Your task to perform on an android device: check out phone information Image 0: 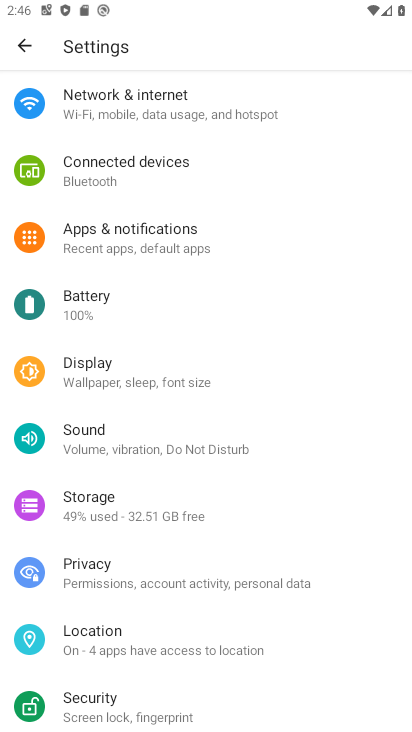
Step 0: drag from (191, 669) to (166, 87)
Your task to perform on an android device: check out phone information Image 1: 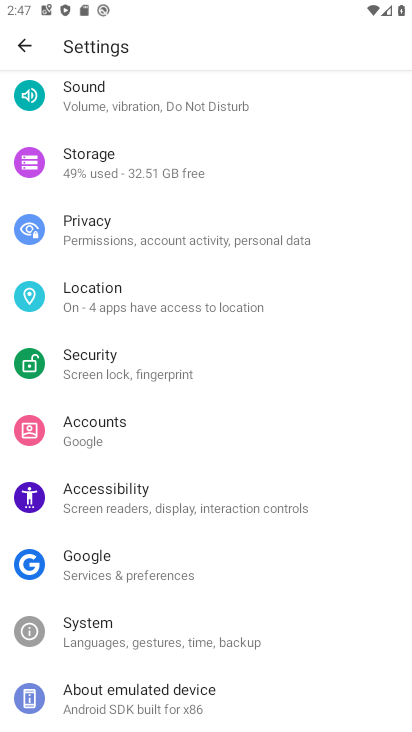
Step 1: drag from (221, 588) to (197, 385)
Your task to perform on an android device: check out phone information Image 2: 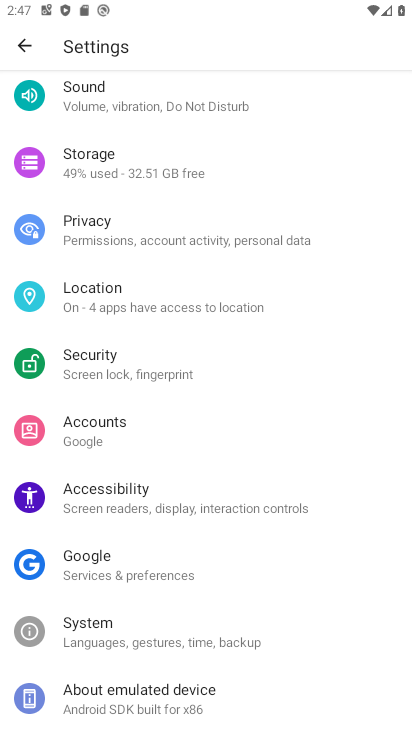
Step 2: click (224, 718)
Your task to perform on an android device: check out phone information Image 3: 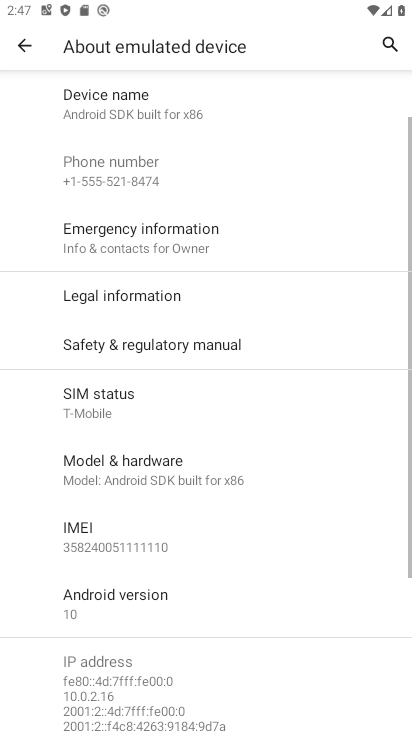
Step 3: task complete